Your task to perform on an android device: Open CNN.com Image 0: 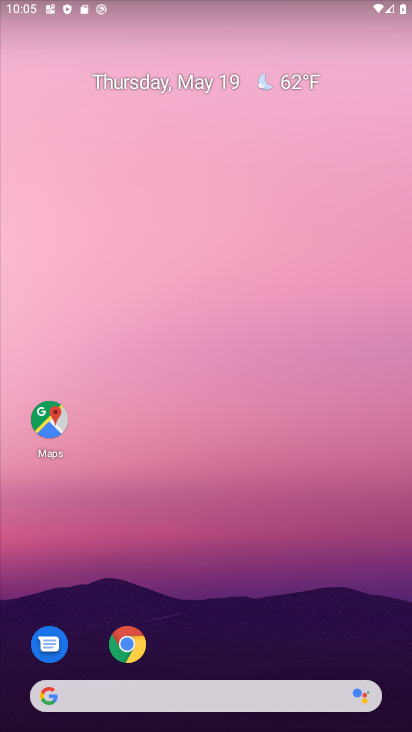
Step 0: drag from (278, 627) to (128, 86)
Your task to perform on an android device: Open CNN.com Image 1: 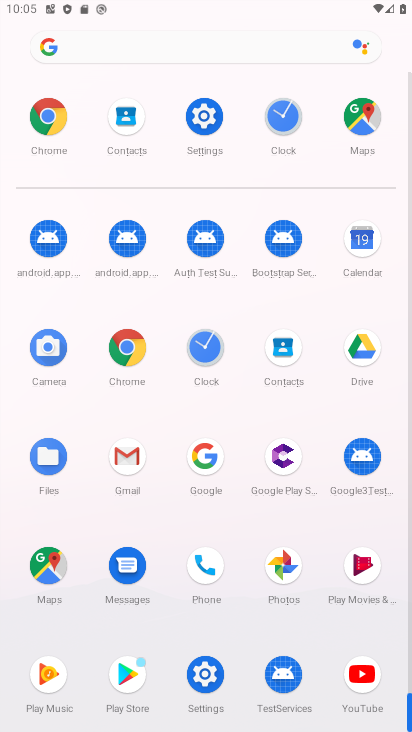
Step 1: click (129, 337)
Your task to perform on an android device: Open CNN.com Image 2: 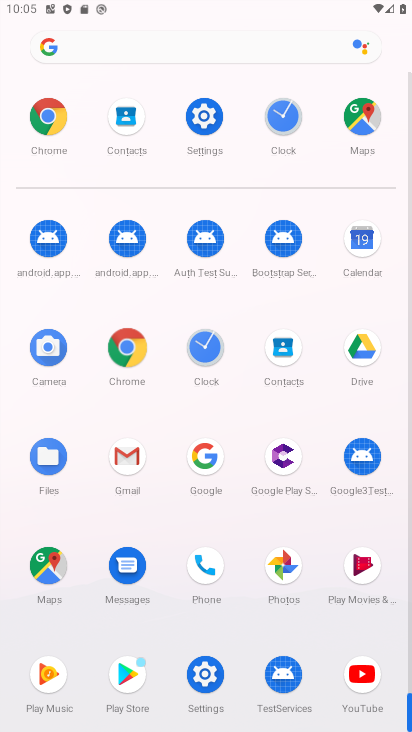
Step 2: click (128, 336)
Your task to perform on an android device: Open CNN.com Image 3: 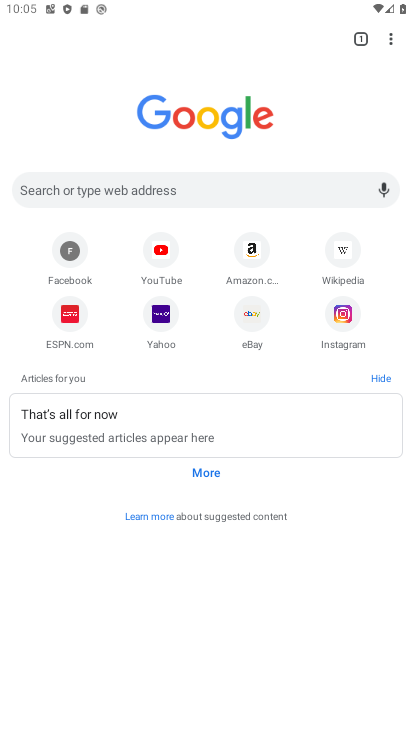
Step 3: click (75, 185)
Your task to perform on an android device: Open CNN.com Image 4: 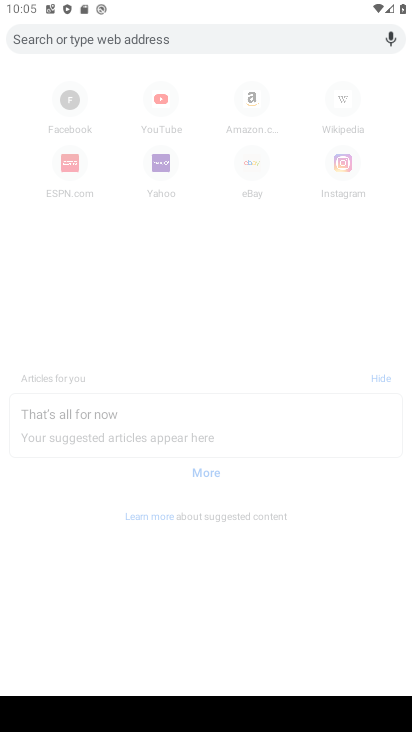
Step 4: type "cnn.com"
Your task to perform on an android device: Open CNN.com Image 5: 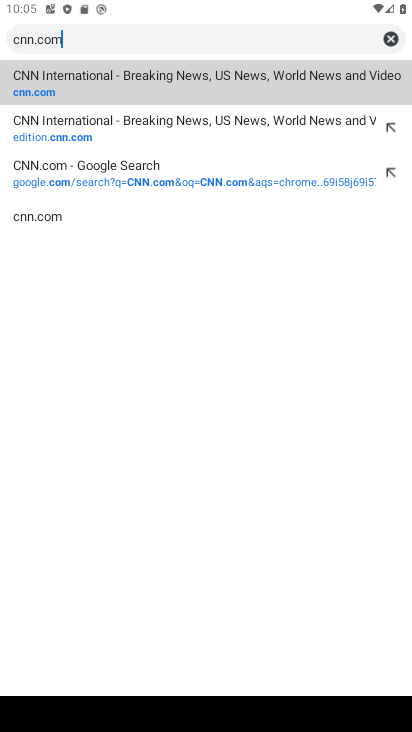
Step 5: click (35, 88)
Your task to perform on an android device: Open CNN.com Image 6: 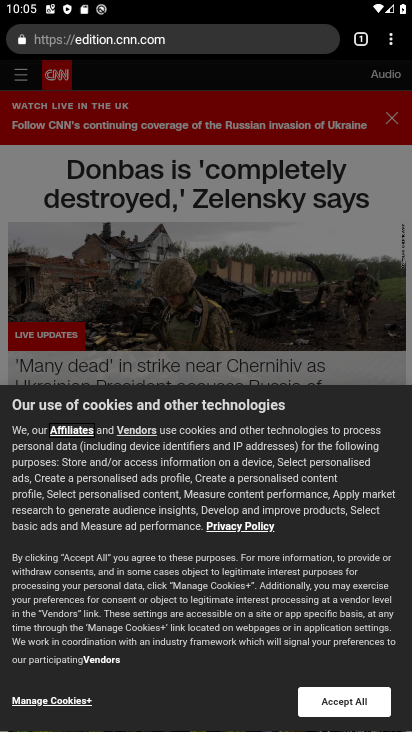
Step 6: press back button
Your task to perform on an android device: Open CNN.com Image 7: 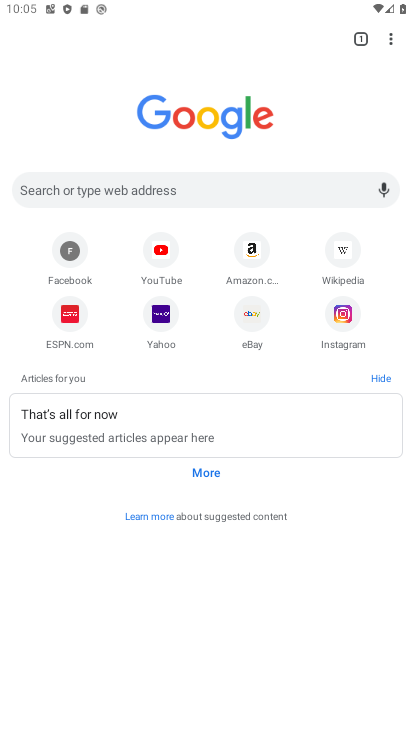
Step 7: click (30, 180)
Your task to perform on an android device: Open CNN.com Image 8: 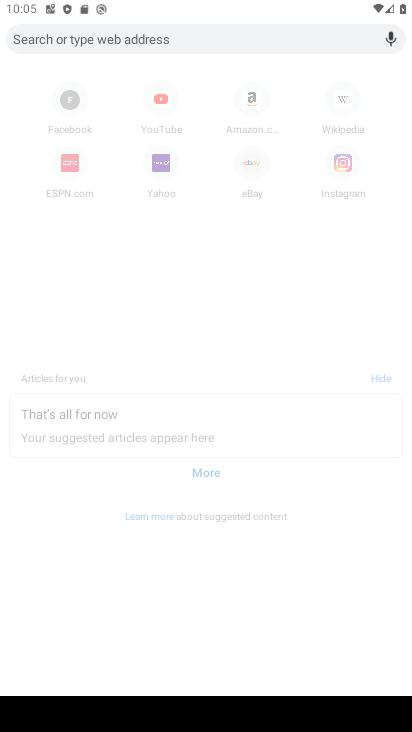
Step 8: type "cnn.com"
Your task to perform on an android device: Open CNN.com Image 9: 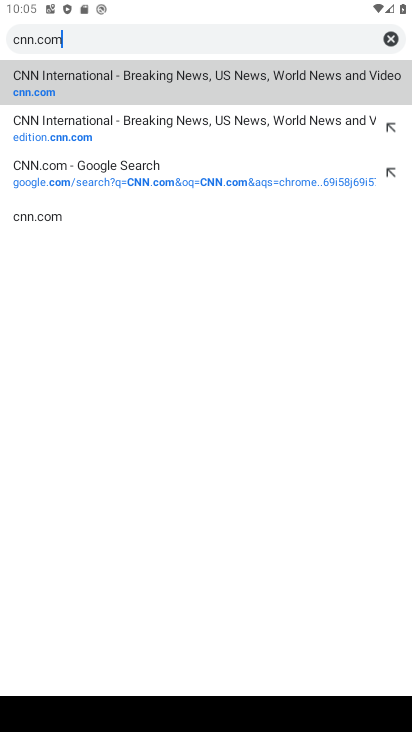
Step 9: task complete